Your task to perform on an android device: delete a single message in the gmail app Image 0: 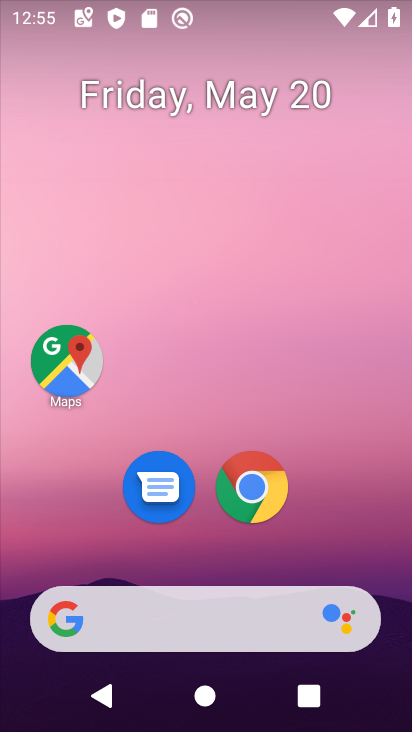
Step 0: drag from (336, 455) to (266, 57)
Your task to perform on an android device: delete a single message in the gmail app Image 1: 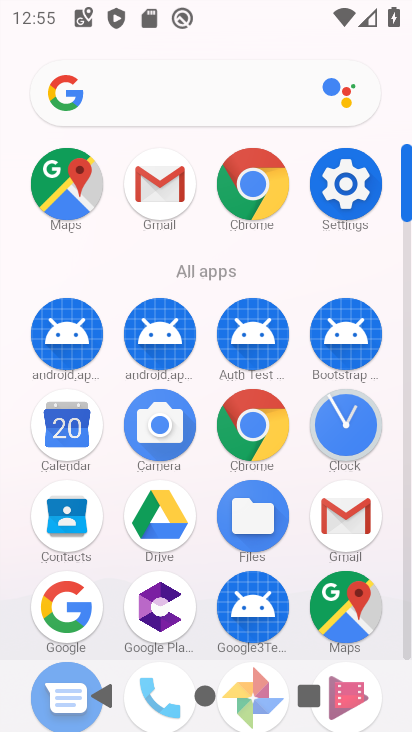
Step 1: click (159, 195)
Your task to perform on an android device: delete a single message in the gmail app Image 2: 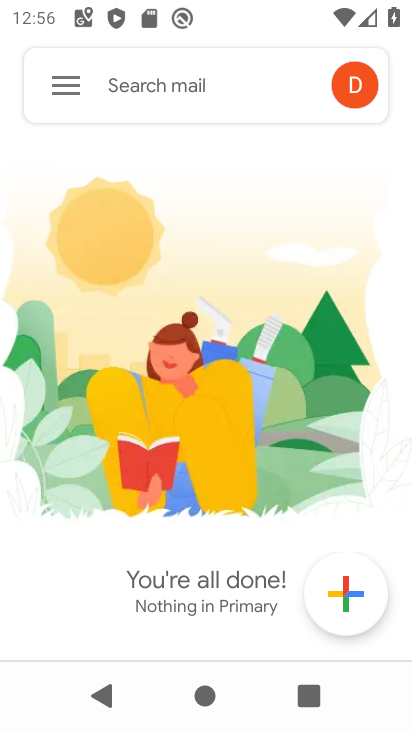
Step 2: click (66, 89)
Your task to perform on an android device: delete a single message in the gmail app Image 3: 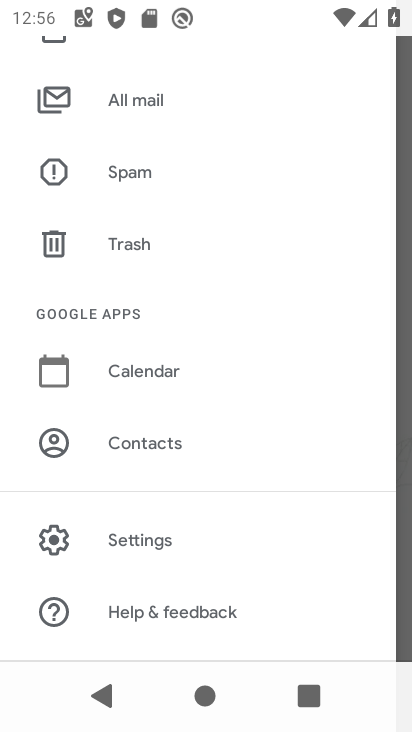
Step 3: click (124, 108)
Your task to perform on an android device: delete a single message in the gmail app Image 4: 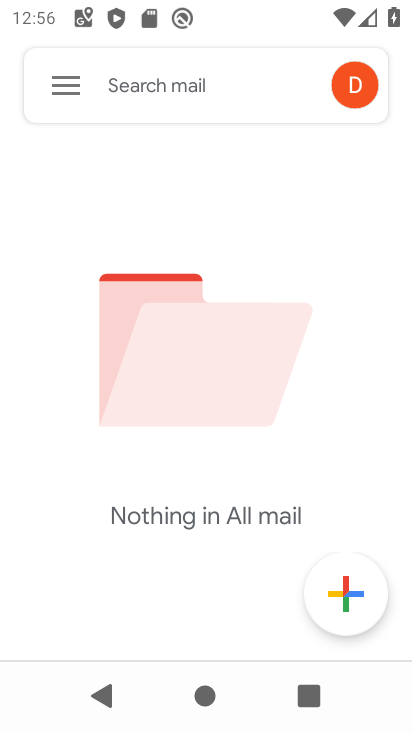
Step 4: task complete